Your task to perform on an android device: move an email to a new category in the gmail app Image 0: 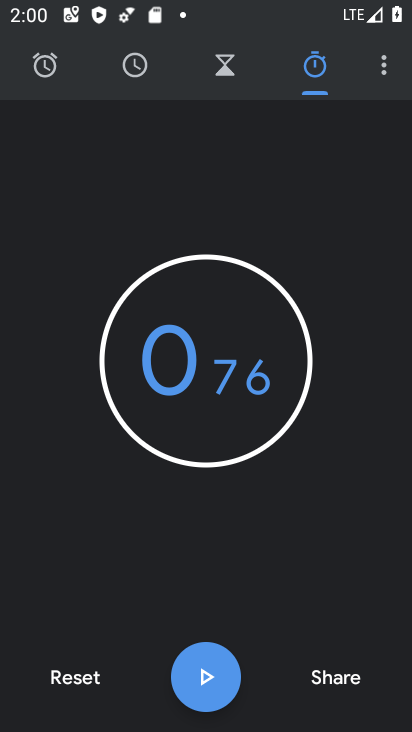
Step 0: press home button
Your task to perform on an android device: move an email to a new category in the gmail app Image 1: 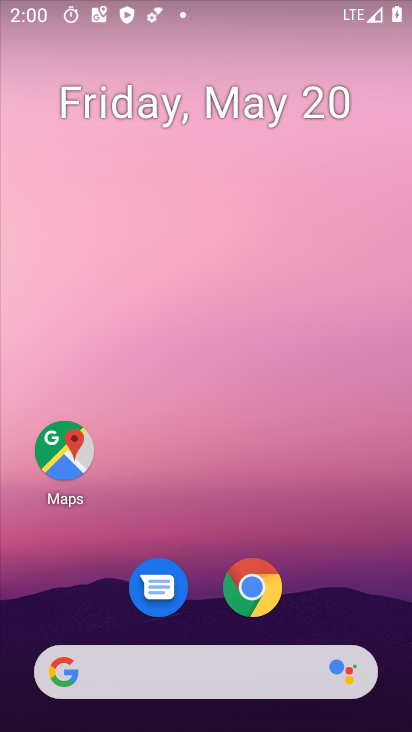
Step 1: drag from (327, 576) to (329, 168)
Your task to perform on an android device: move an email to a new category in the gmail app Image 2: 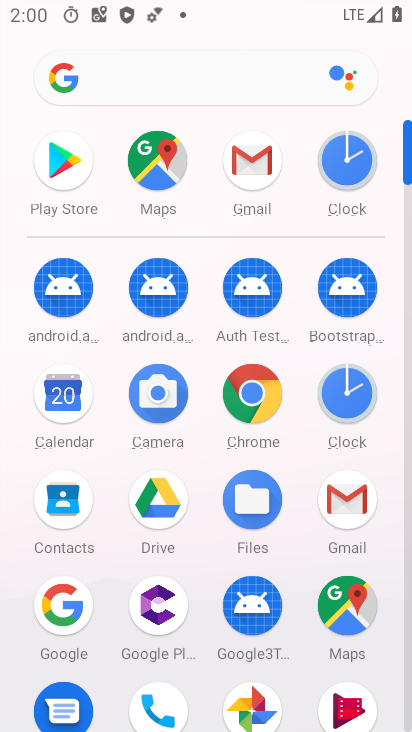
Step 2: click (261, 176)
Your task to perform on an android device: move an email to a new category in the gmail app Image 3: 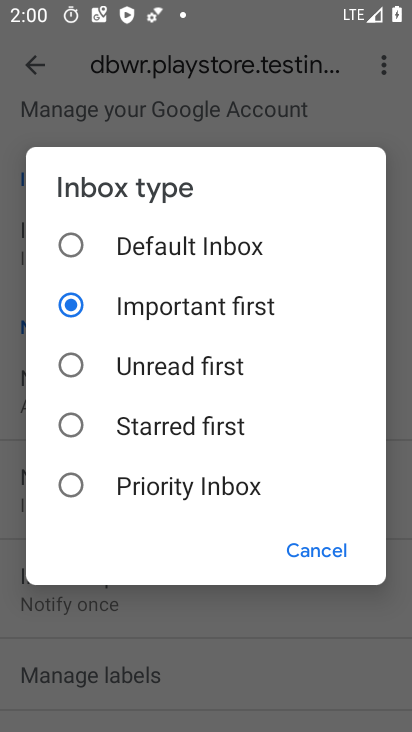
Step 3: click (253, 151)
Your task to perform on an android device: move an email to a new category in the gmail app Image 4: 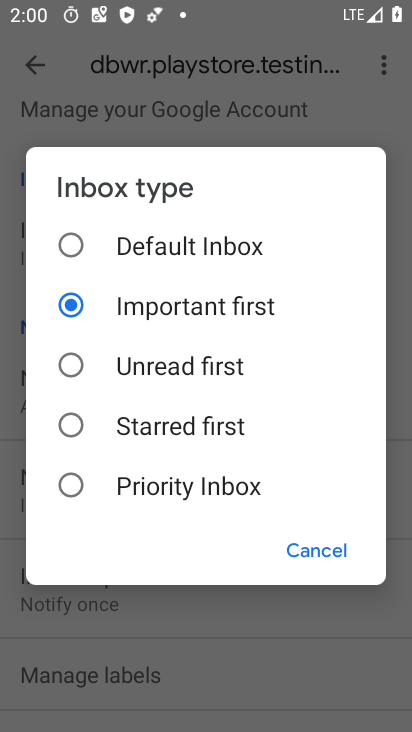
Step 4: click (31, 63)
Your task to perform on an android device: move an email to a new category in the gmail app Image 5: 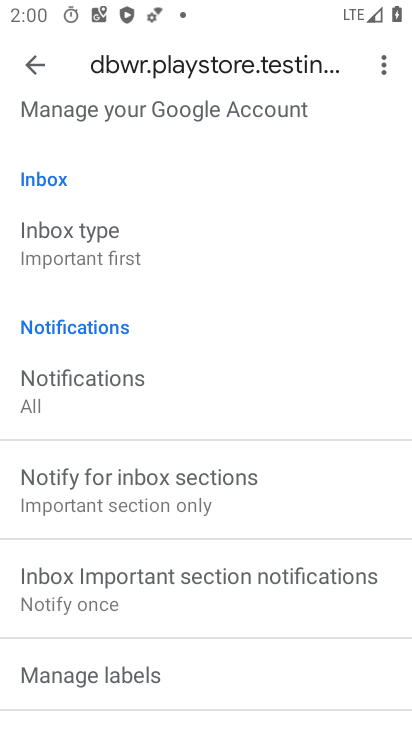
Step 5: click (32, 64)
Your task to perform on an android device: move an email to a new category in the gmail app Image 6: 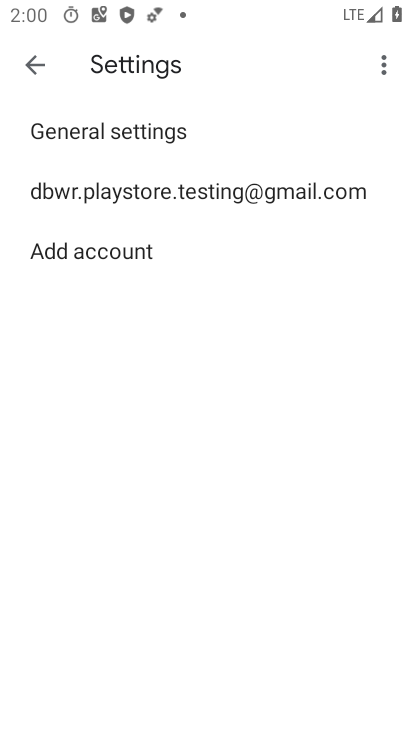
Step 6: click (33, 65)
Your task to perform on an android device: move an email to a new category in the gmail app Image 7: 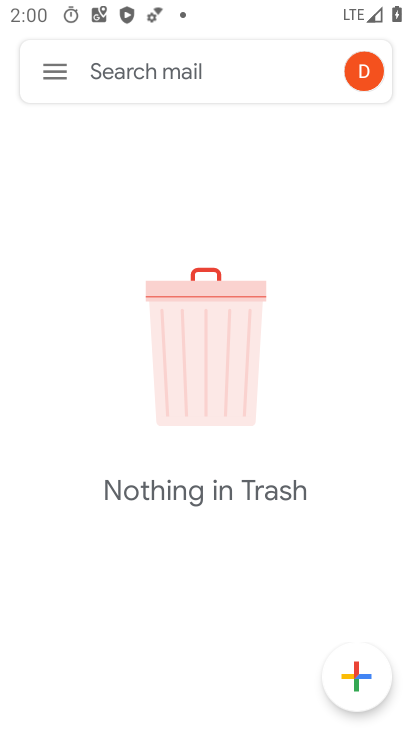
Step 7: click (34, 68)
Your task to perform on an android device: move an email to a new category in the gmail app Image 8: 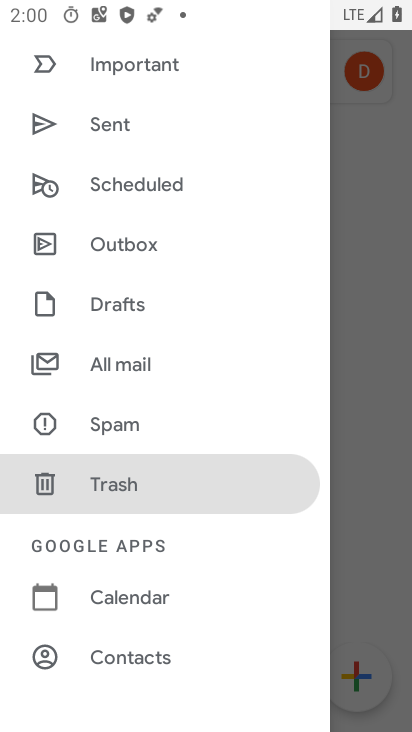
Step 8: drag from (161, 289) to (142, 677)
Your task to perform on an android device: move an email to a new category in the gmail app Image 9: 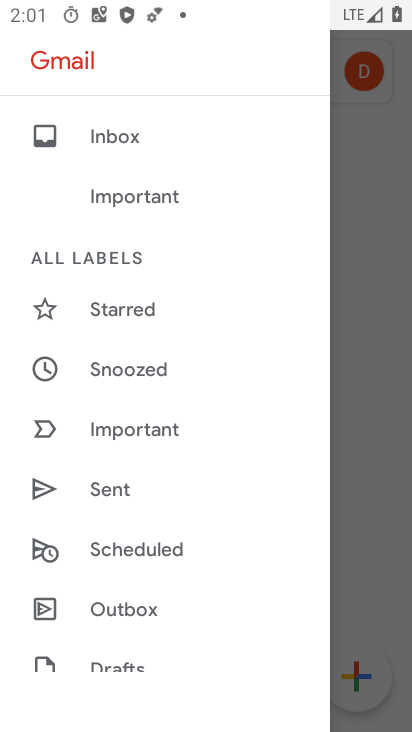
Step 9: drag from (137, 542) to (195, 233)
Your task to perform on an android device: move an email to a new category in the gmail app Image 10: 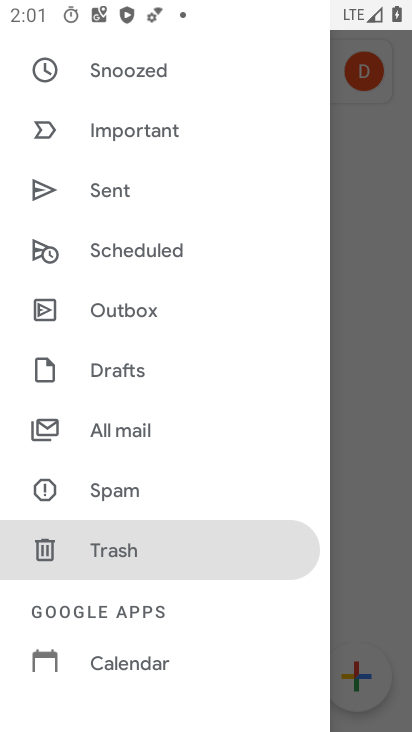
Step 10: click (124, 444)
Your task to perform on an android device: move an email to a new category in the gmail app Image 11: 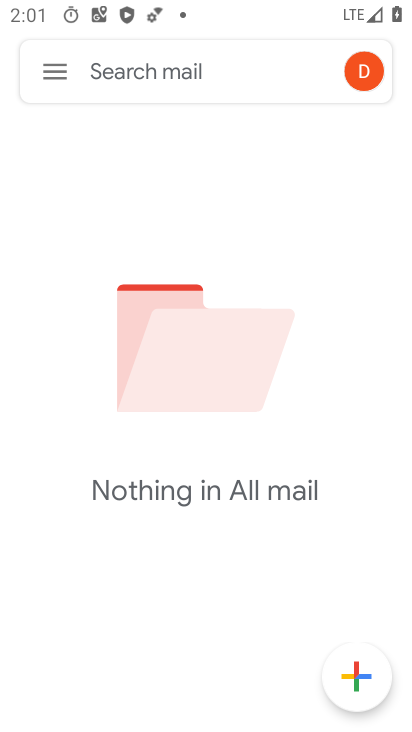
Step 11: task complete